Your task to perform on an android device: When is my next appointment? Image 0: 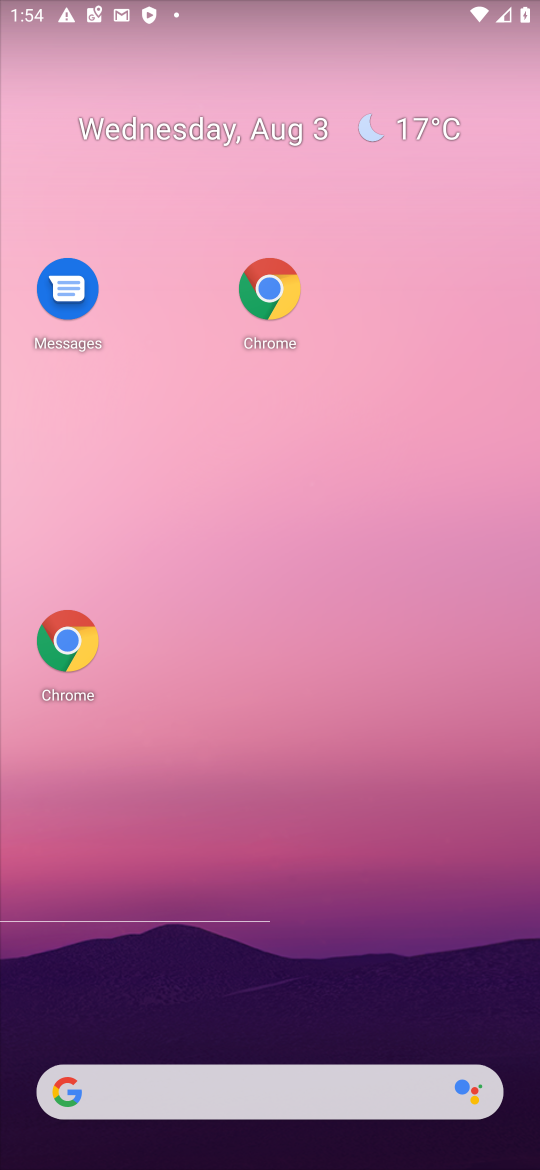
Step 0: drag from (316, 1016) to (327, 404)
Your task to perform on an android device: When is my next appointment? Image 1: 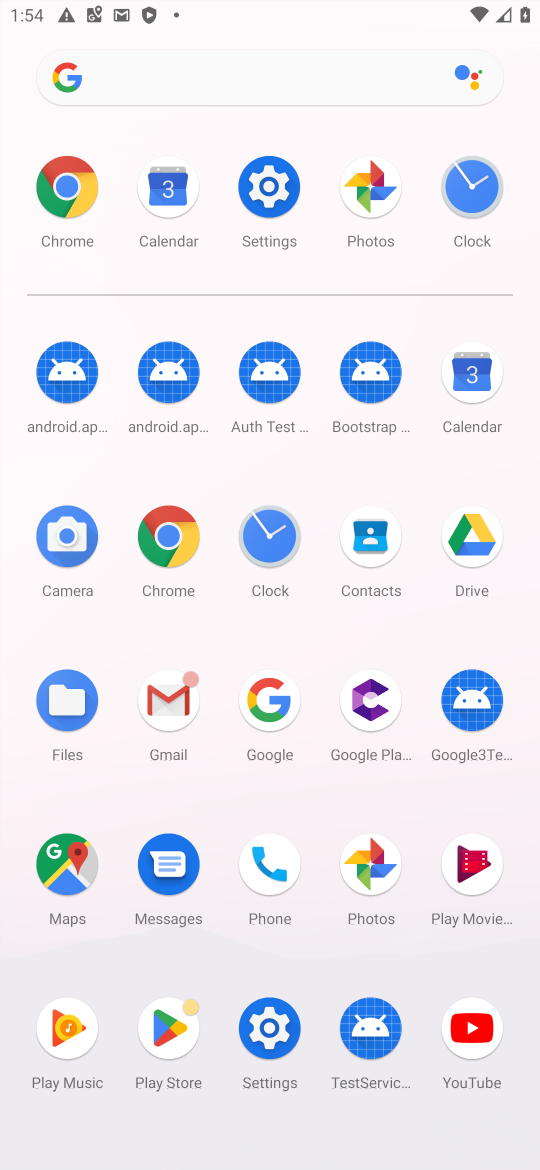
Step 1: click (275, 1017)
Your task to perform on an android device: When is my next appointment? Image 2: 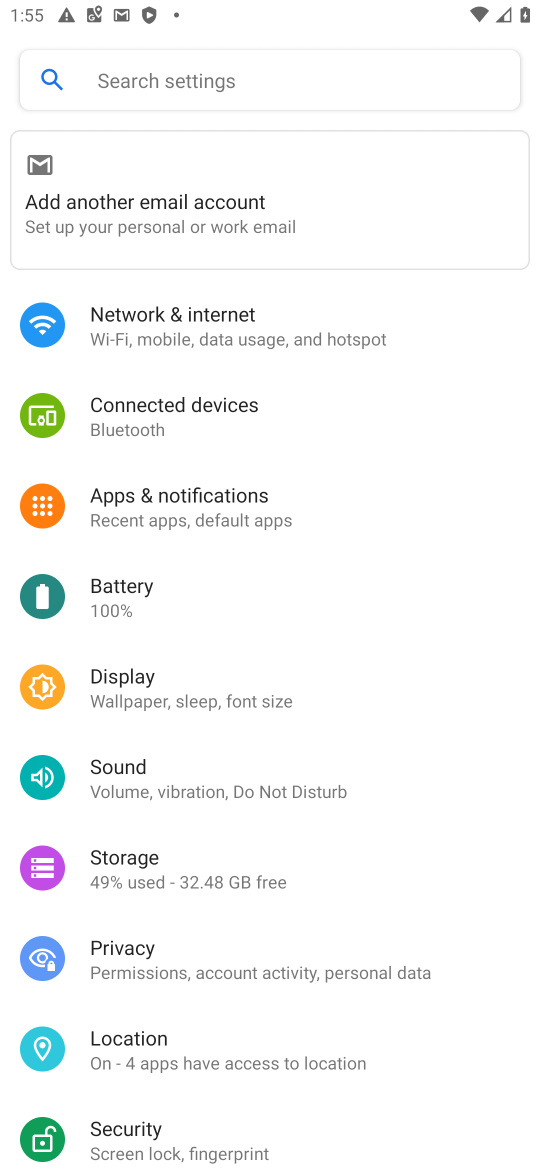
Step 2: drag from (275, 1017) to (285, 763)
Your task to perform on an android device: When is my next appointment? Image 3: 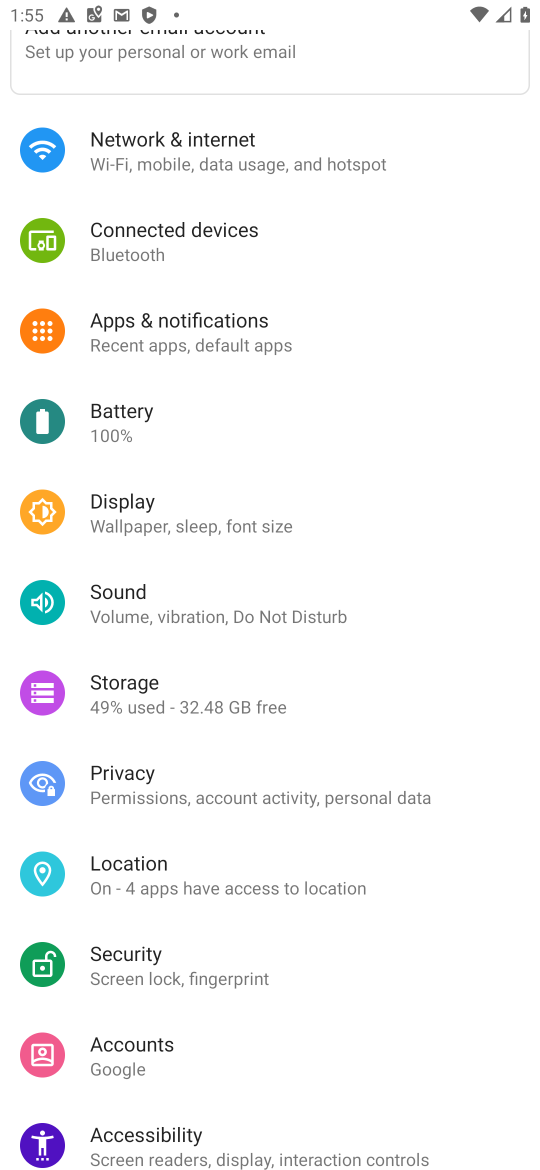
Step 3: press home button
Your task to perform on an android device: When is my next appointment? Image 4: 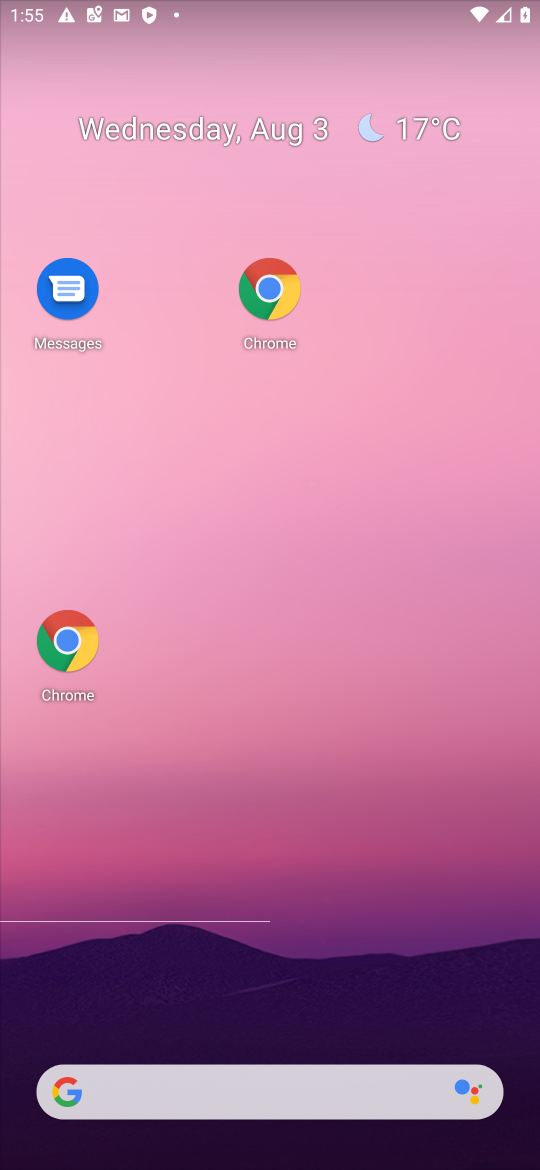
Step 4: drag from (299, 1027) to (384, 208)
Your task to perform on an android device: When is my next appointment? Image 5: 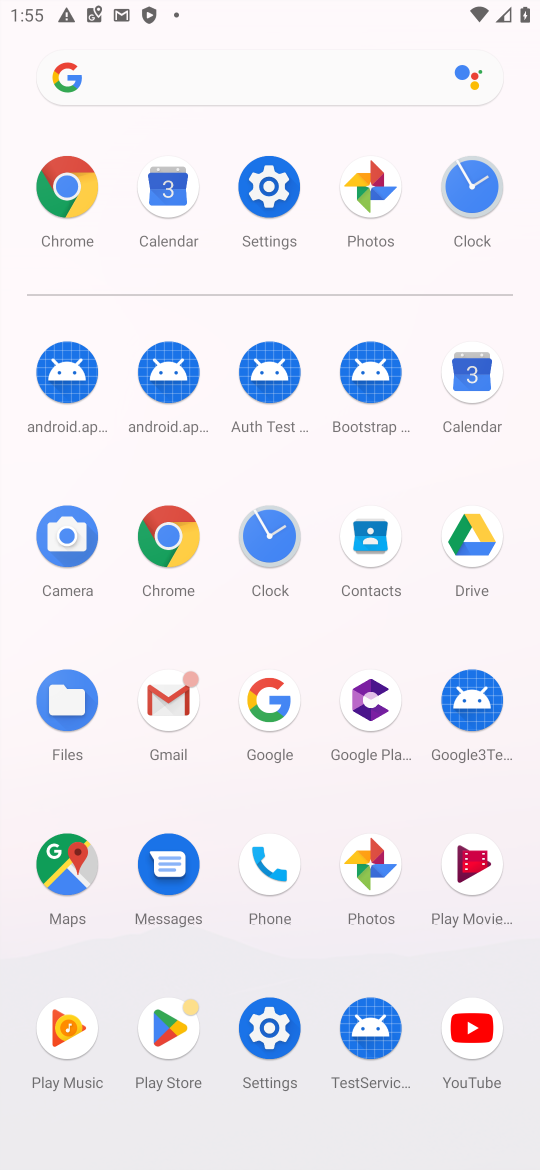
Step 5: click (163, 229)
Your task to perform on an android device: When is my next appointment? Image 6: 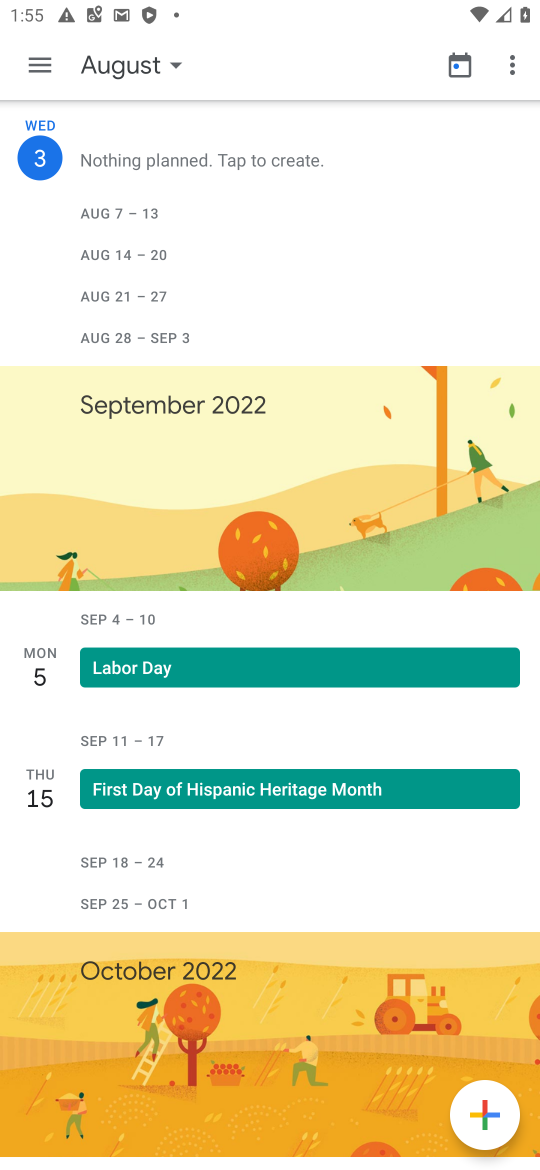
Step 6: task complete